Your task to perform on an android device: toggle sleep mode Image 0: 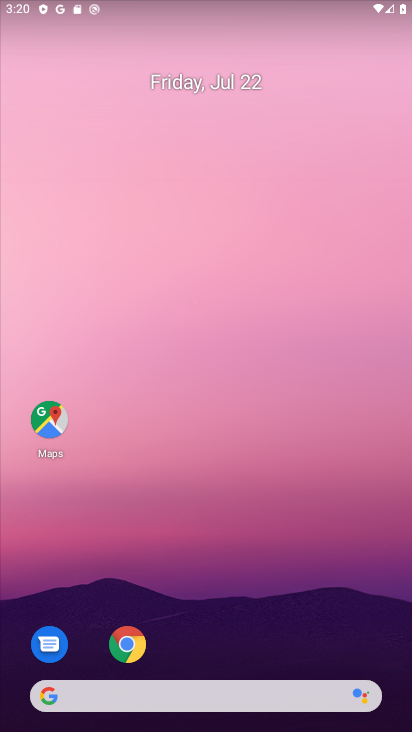
Step 0: drag from (255, 715) to (239, 346)
Your task to perform on an android device: toggle sleep mode Image 1: 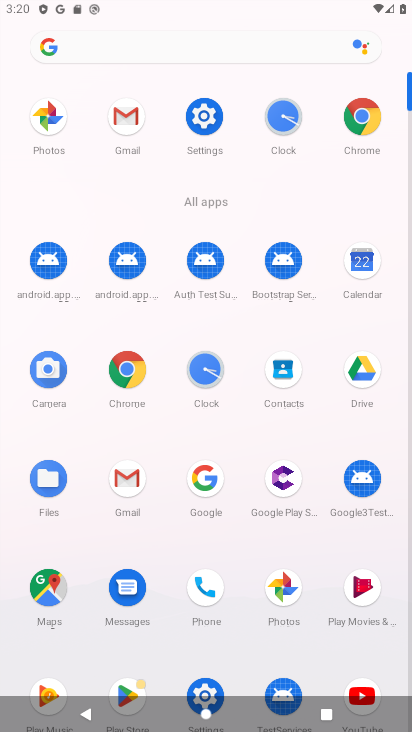
Step 1: click (210, 116)
Your task to perform on an android device: toggle sleep mode Image 2: 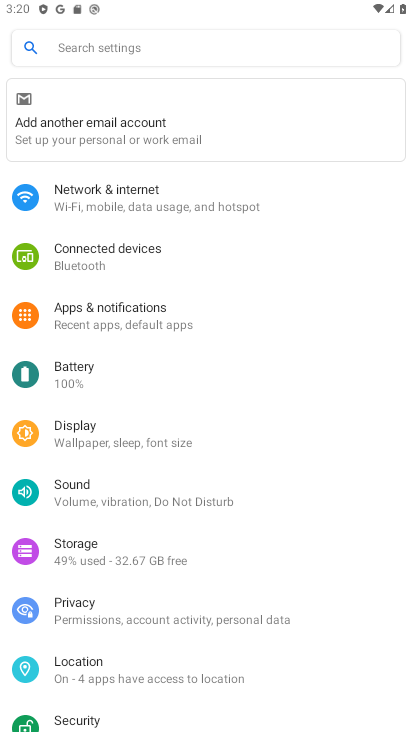
Step 2: click (120, 446)
Your task to perform on an android device: toggle sleep mode Image 3: 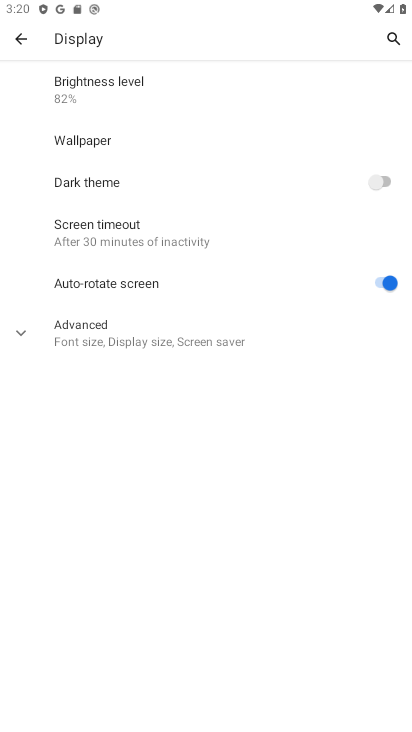
Step 3: click (91, 328)
Your task to perform on an android device: toggle sleep mode Image 4: 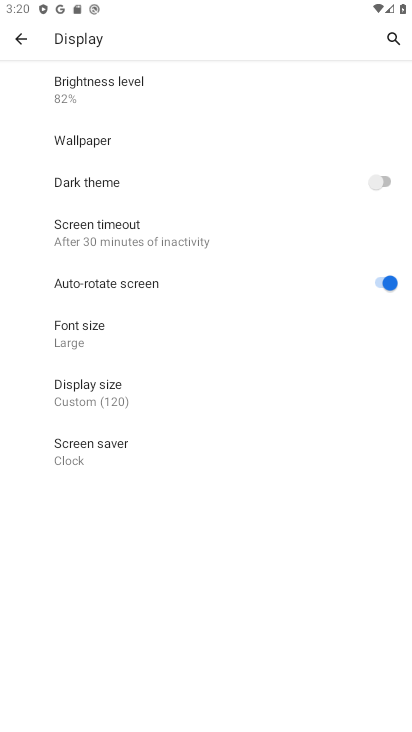
Step 4: task complete